Your task to perform on an android device: Open sound settings Image 0: 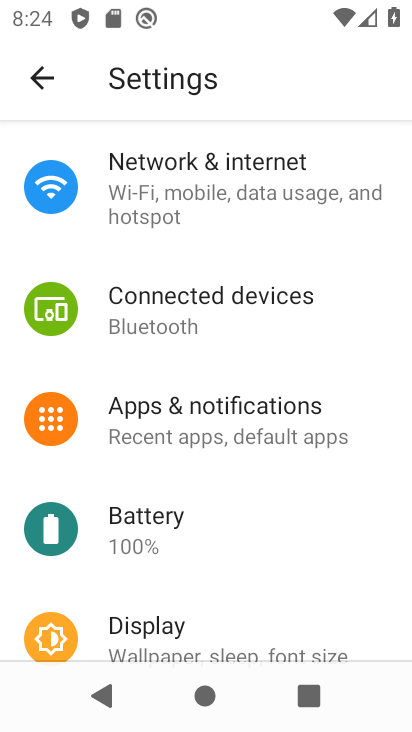
Step 0: drag from (236, 543) to (347, 137)
Your task to perform on an android device: Open sound settings Image 1: 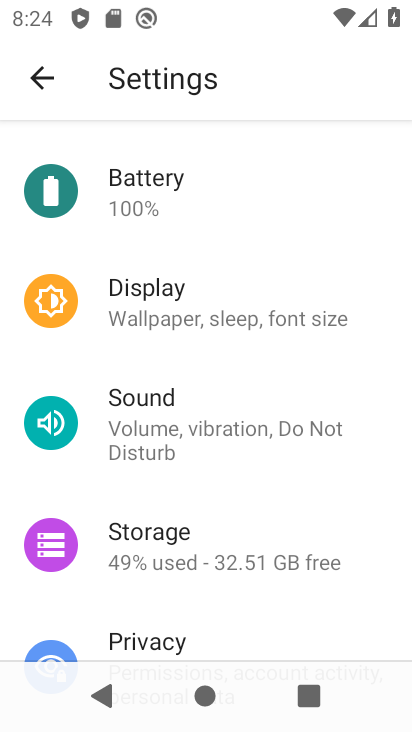
Step 1: click (159, 443)
Your task to perform on an android device: Open sound settings Image 2: 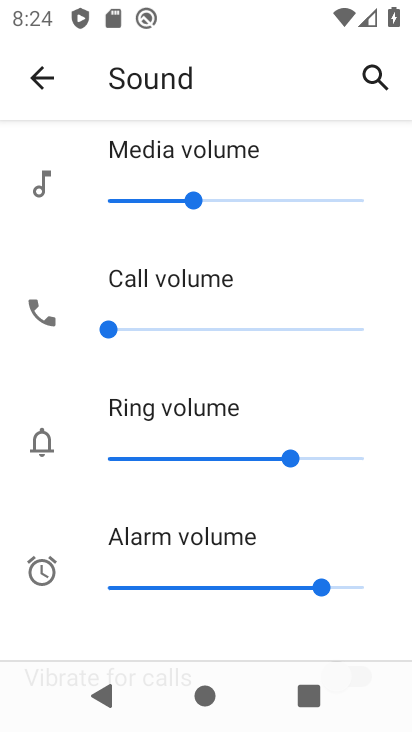
Step 2: task complete